Your task to perform on an android device: see tabs open on other devices in the chrome app Image 0: 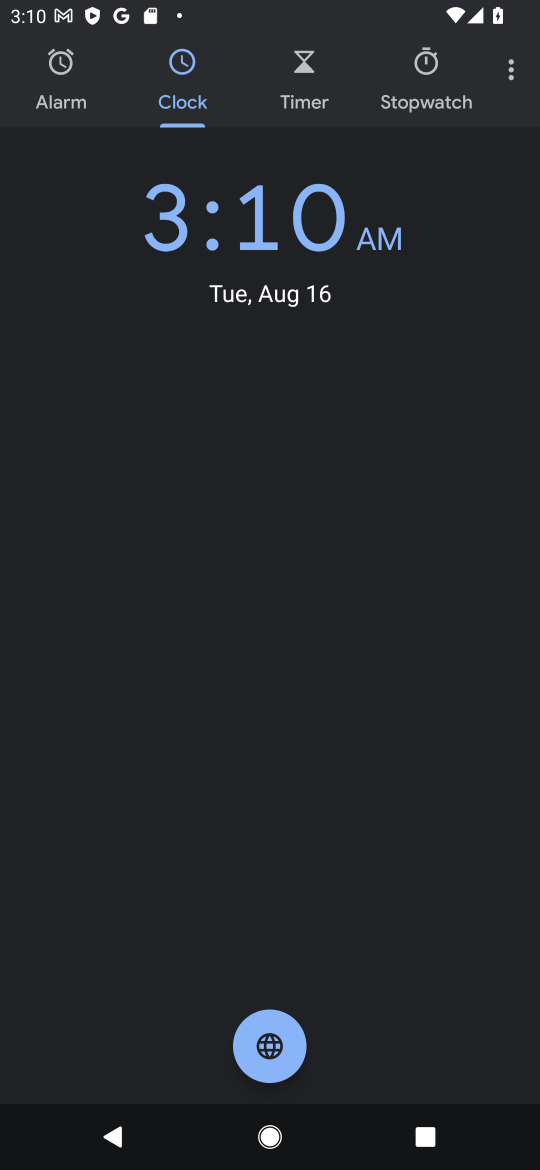
Step 0: press back button
Your task to perform on an android device: see tabs open on other devices in the chrome app Image 1: 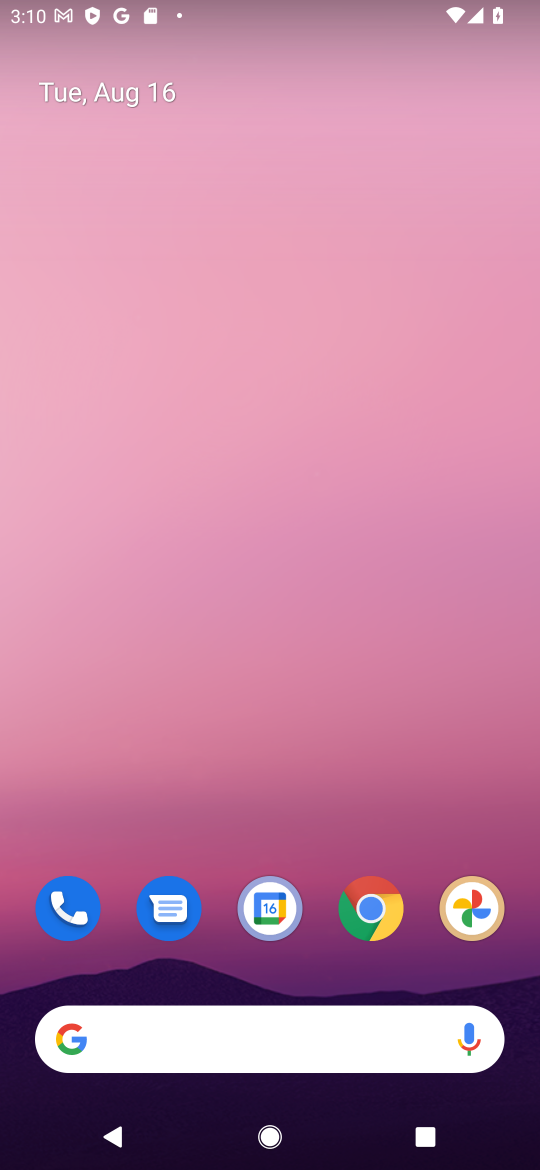
Step 1: click (378, 906)
Your task to perform on an android device: see tabs open on other devices in the chrome app Image 2: 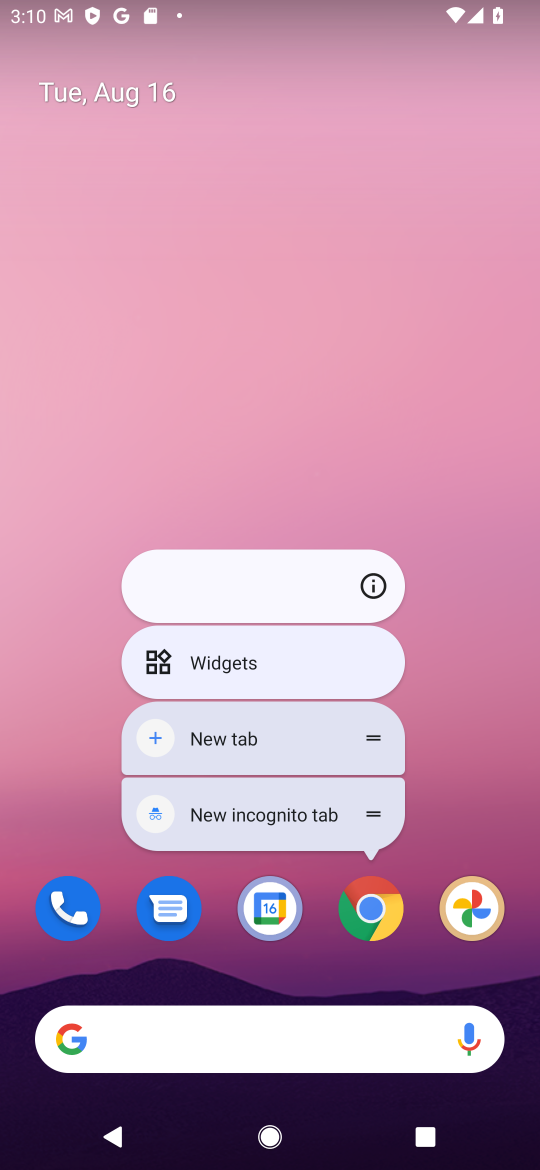
Step 2: click (370, 909)
Your task to perform on an android device: see tabs open on other devices in the chrome app Image 3: 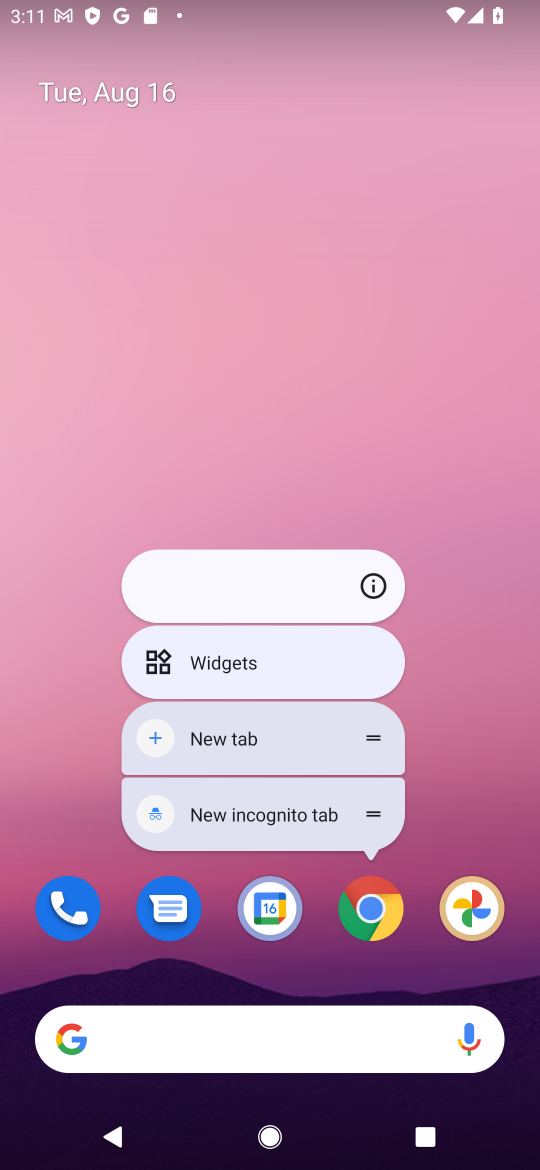
Step 3: click (370, 912)
Your task to perform on an android device: see tabs open on other devices in the chrome app Image 4: 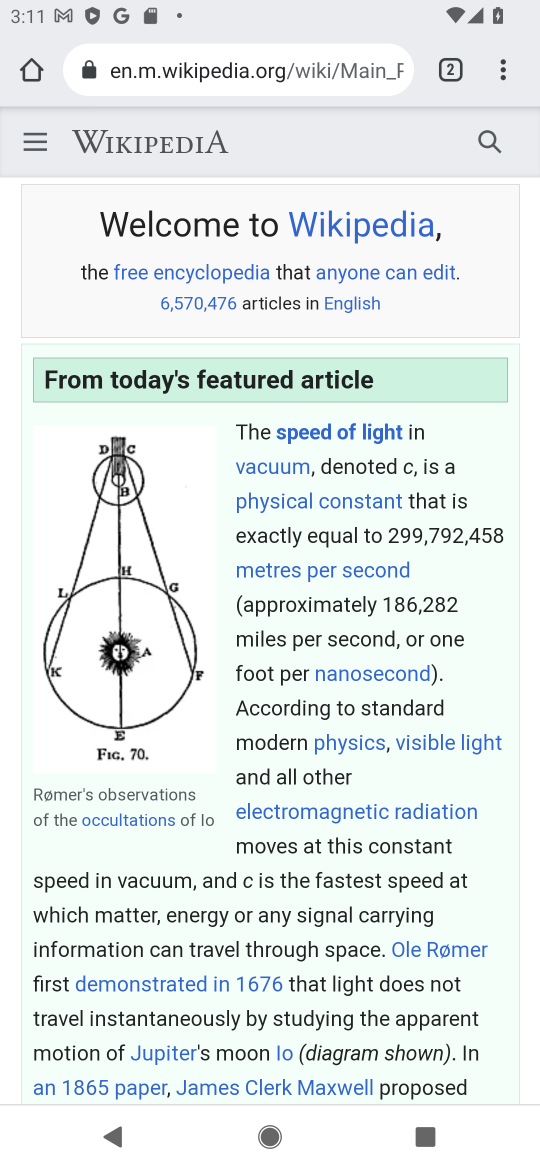
Step 4: task complete